Your task to perform on an android device: Search for vegetarian restaurants on Maps Image 0: 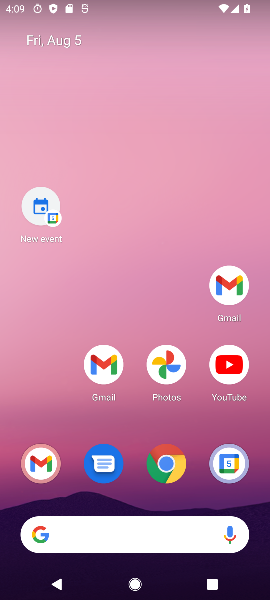
Step 0: drag from (157, 546) to (147, 169)
Your task to perform on an android device: Search for vegetarian restaurants on Maps Image 1: 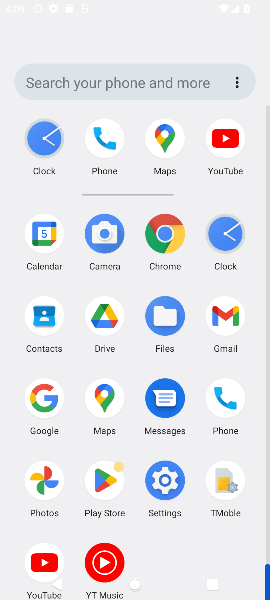
Step 1: drag from (181, 440) to (183, 147)
Your task to perform on an android device: Search for vegetarian restaurants on Maps Image 2: 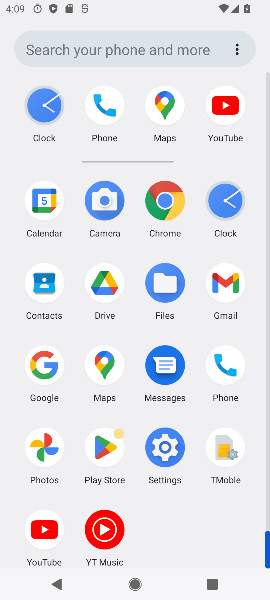
Step 2: click (101, 374)
Your task to perform on an android device: Search for vegetarian restaurants on Maps Image 3: 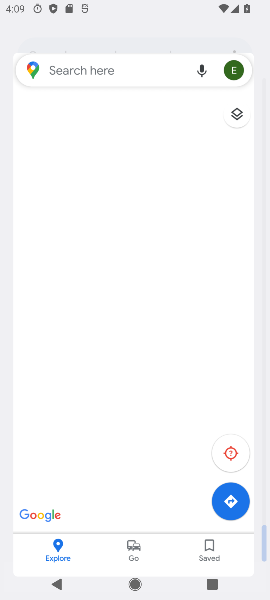
Step 3: click (101, 374)
Your task to perform on an android device: Search for vegetarian restaurants on Maps Image 4: 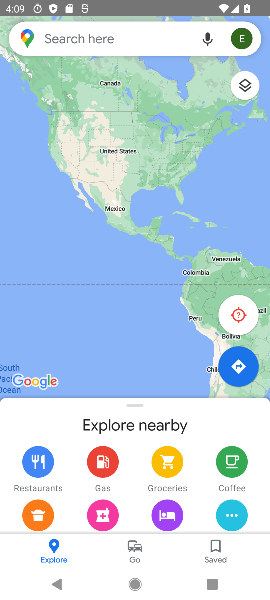
Step 4: click (68, 34)
Your task to perform on an android device: Search for vegetarian restaurants on Maps Image 5: 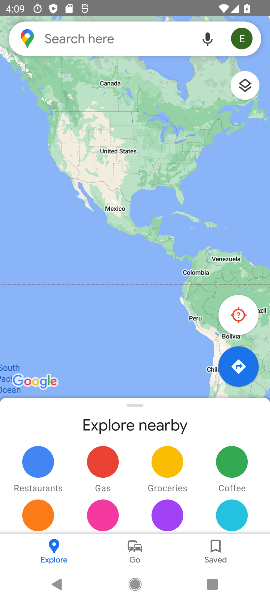
Step 5: drag from (93, 48) to (58, 37)
Your task to perform on an android device: Search for vegetarian restaurants on Maps Image 6: 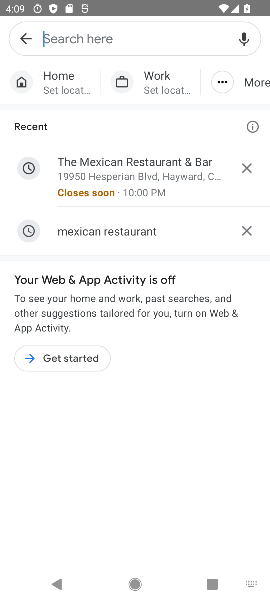
Step 6: click (60, 37)
Your task to perform on an android device: Search for vegetarian restaurants on Maps Image 7: 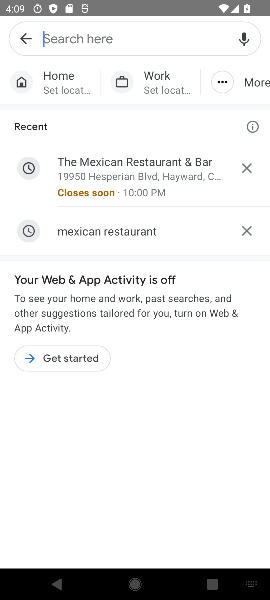
Step 7: type "vegetarian restaurants"
Your task to perform on an android device: Search for vegetarian restaurants on Maps Image 8: 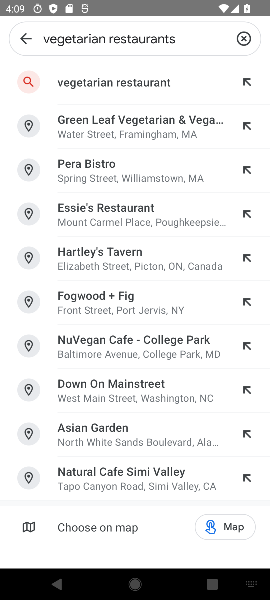
Step 8: click (124, 87)
Your task to perform on an android device: Search for vegetarian restaurants on Maps Image 9: 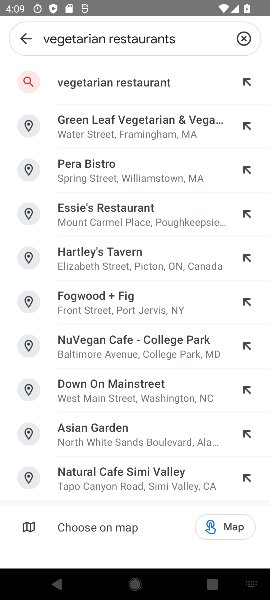
Step 9: click (125, 87)
Your task to perform on an android device: Search for vegetarian restaurants on Maps Image 10: 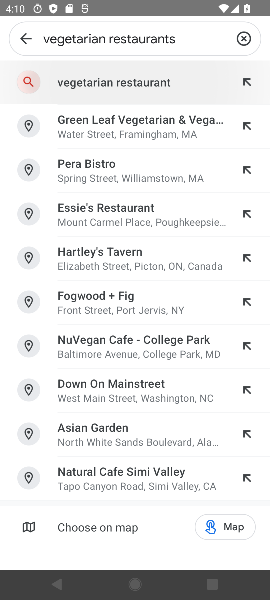
Step 10: click (126, 86)
Your task to perform on an android device: Search for vegetarian restaurants on Maps Image 11: 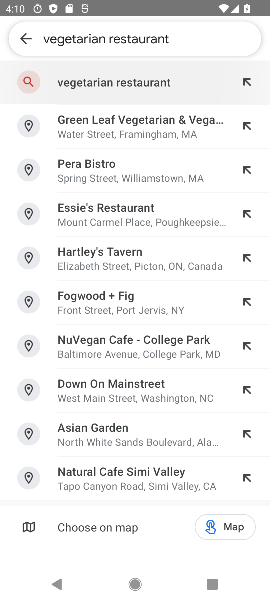
Step 11: click (130, 85)
Your task to perform on an android device: Search for vegetarian restaurants on Maps Image 12: 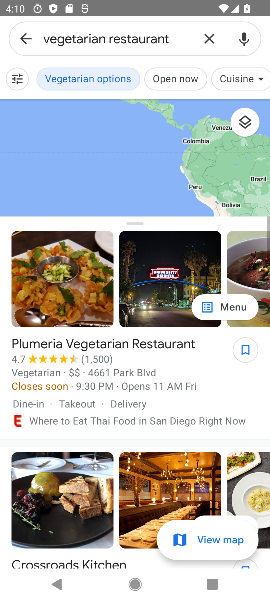
Step 12: task complete